Your task to perform on an android device: Search for the best pizza restaurants on Maps Image 0: 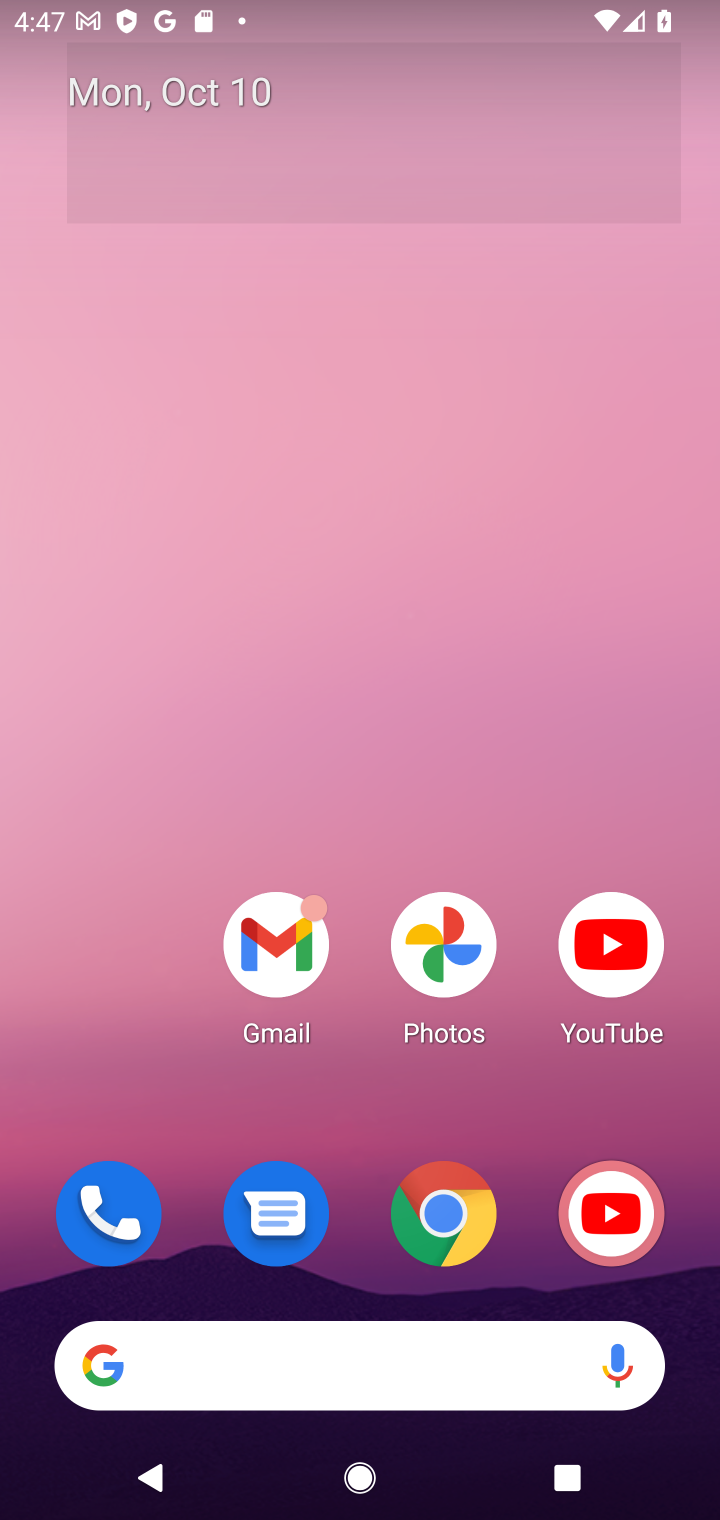
Step 0: drag from (361, 1038) to (332, 243)
Your task to perform on an android device: Search for the best pizza restaurants on Maps Image 1: 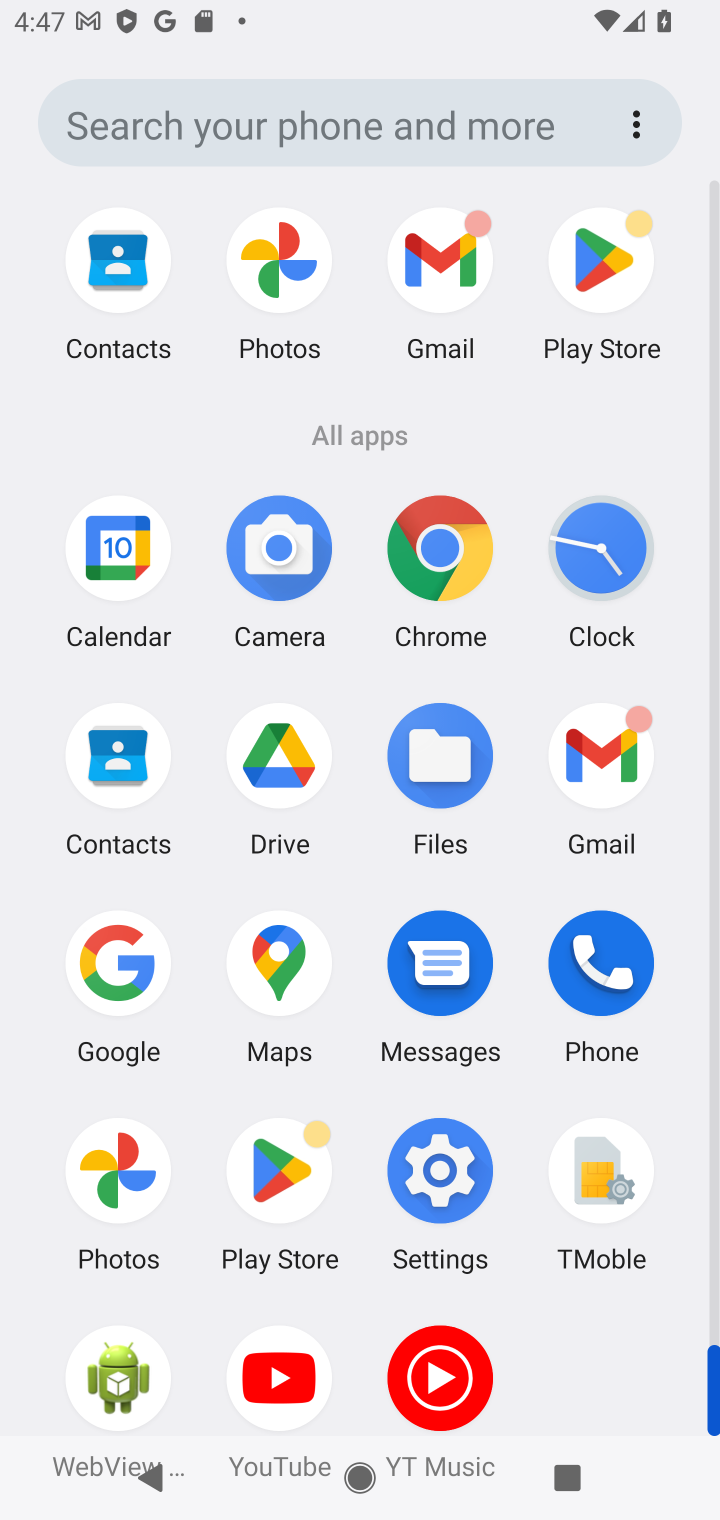
Step 1: click (284, 968)
Your task to perform on an android device: Search for the best pizza restaurants on Maps Image 2: 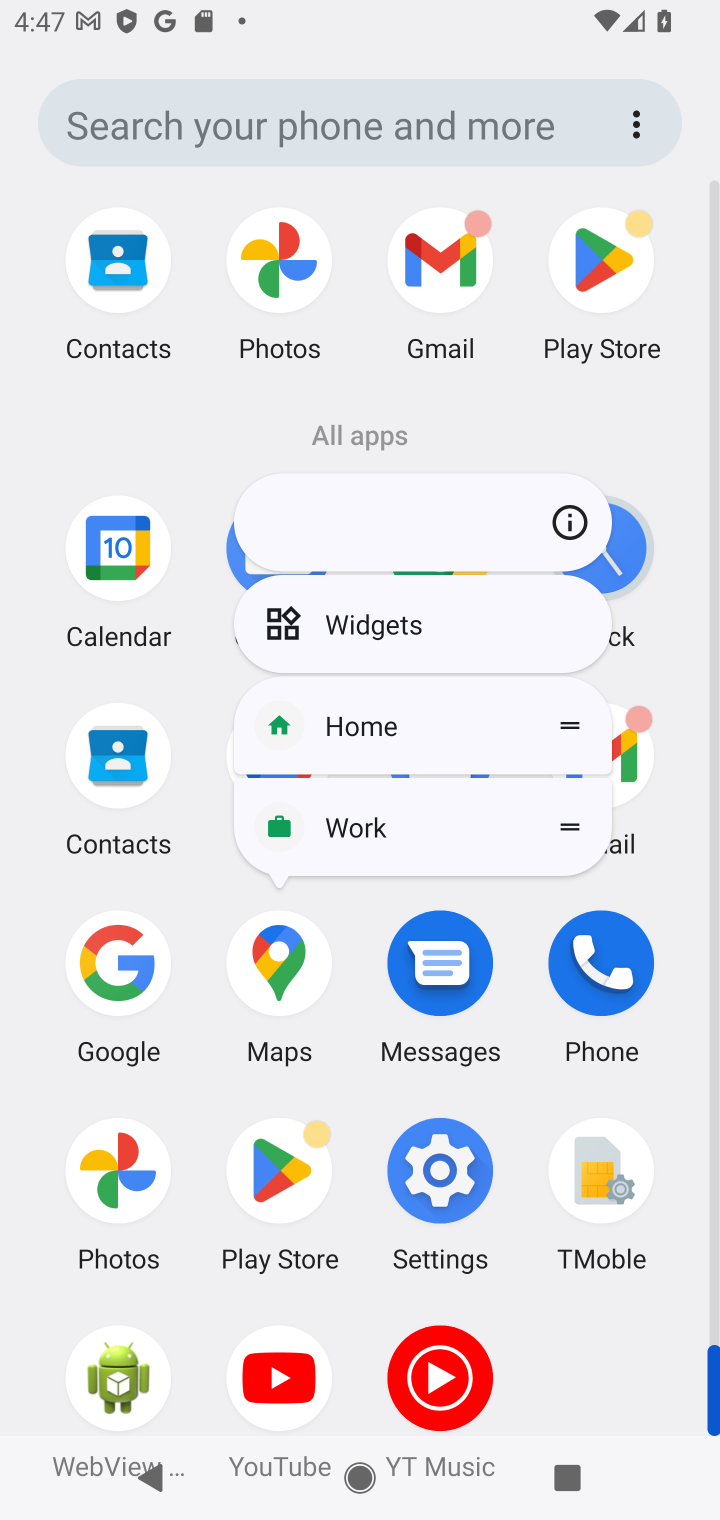
Step 2: click (284, 968)
Your task to perform on an android device: Search for the best pizza restaurants on Maps Image 3: 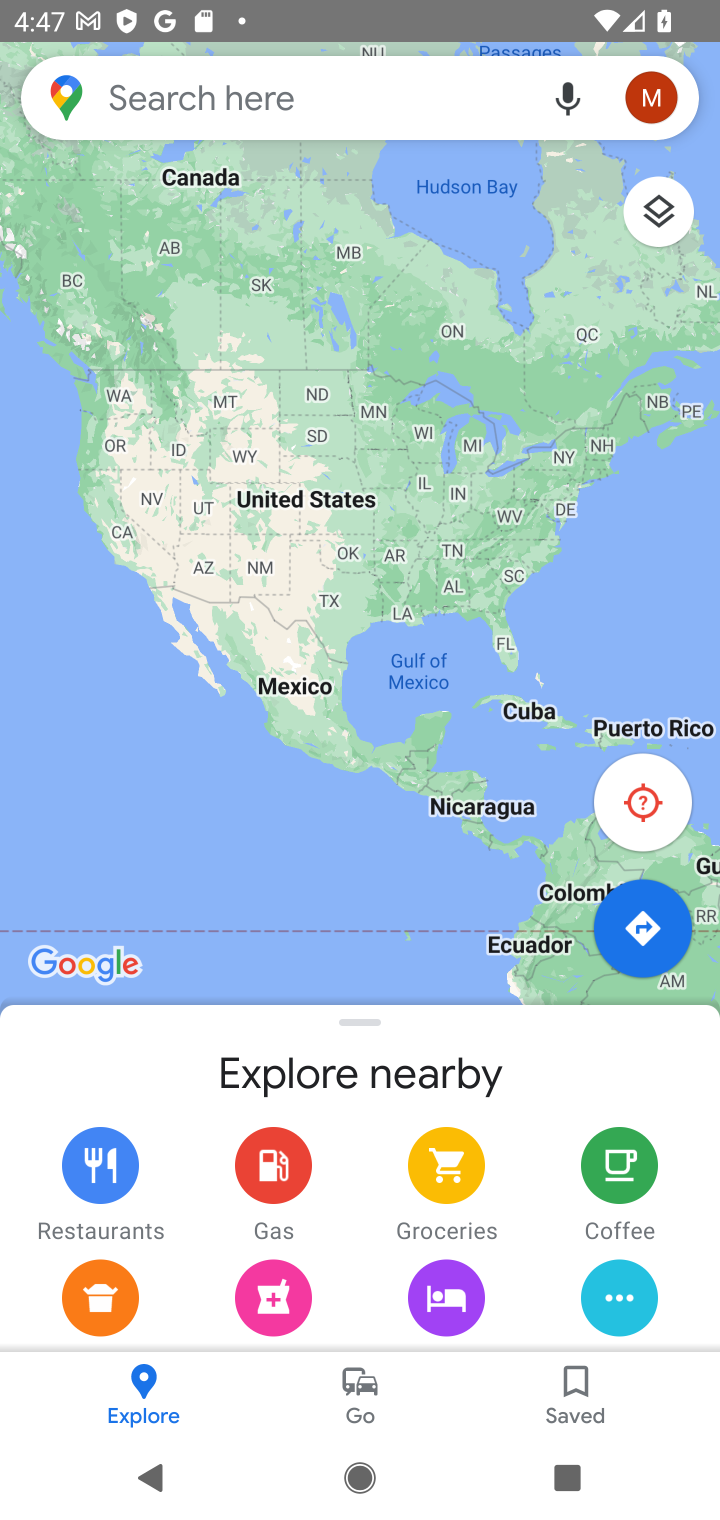
Step 3: click (437, 109)
Your task to perform on an android device: Search for the best pizza restaurants on Maps Image 4: 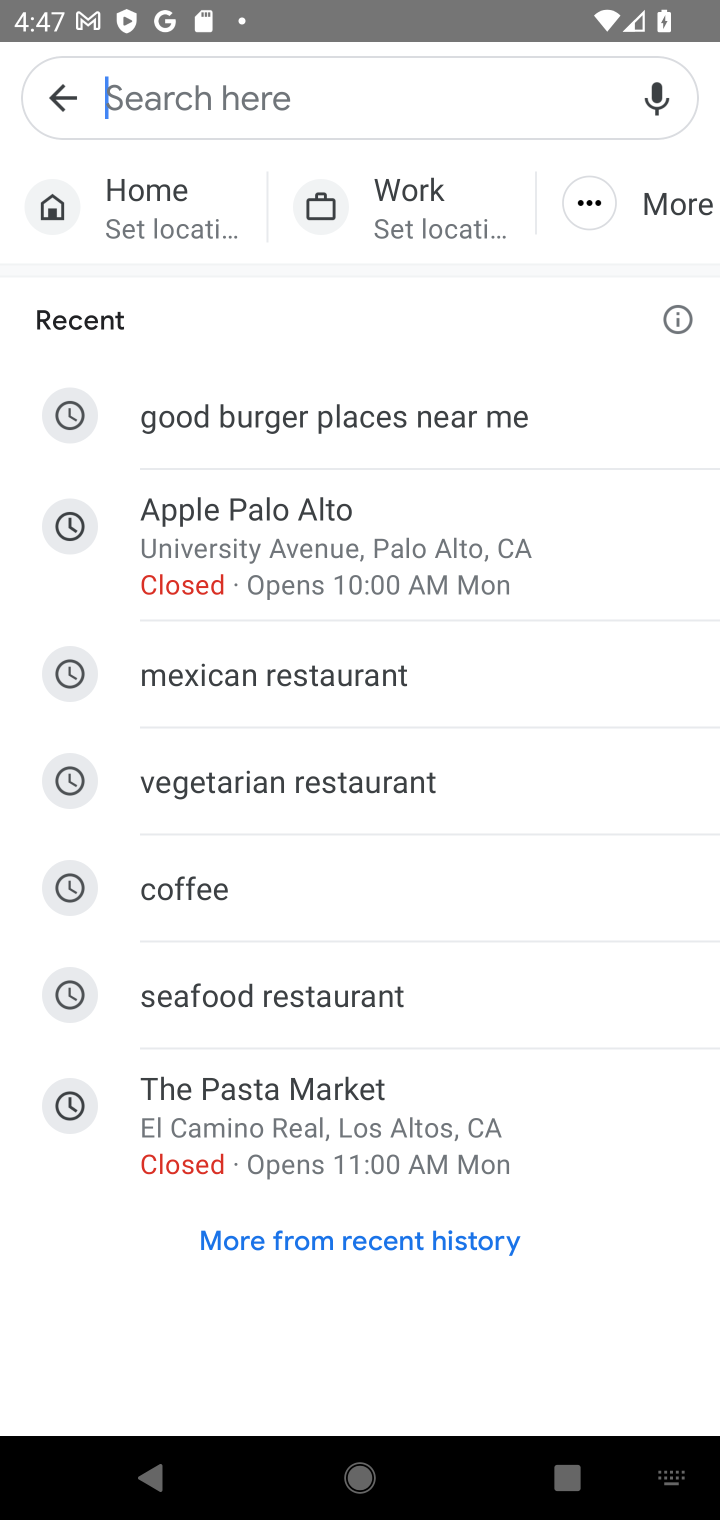
Step 4: type "best pizza restaurants"
Your task to perform on an android device: Search for the best pizza restaurants on Maps Image 5: 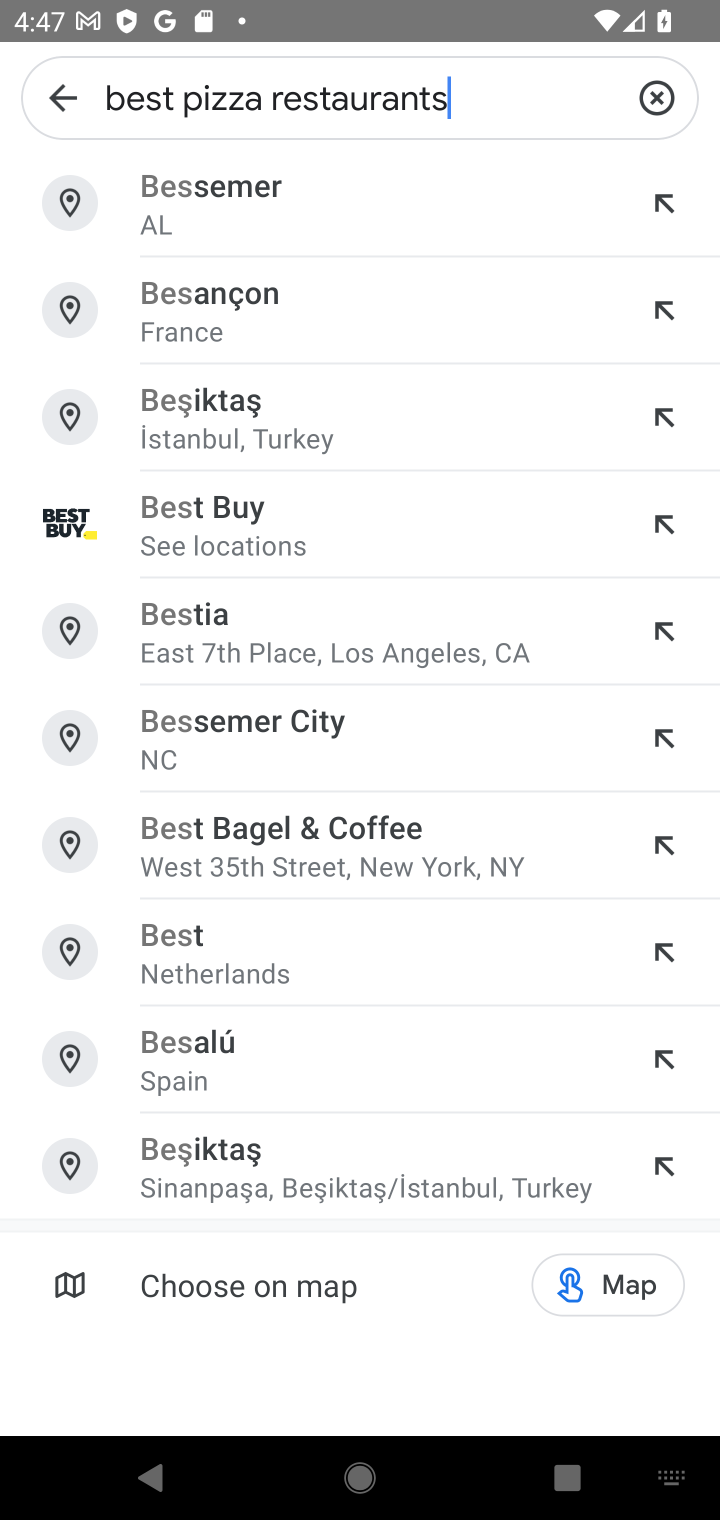
Step 5: type ""
Your task to perform on an android device: Search for the best pizza restaurants on Maps Image 6: 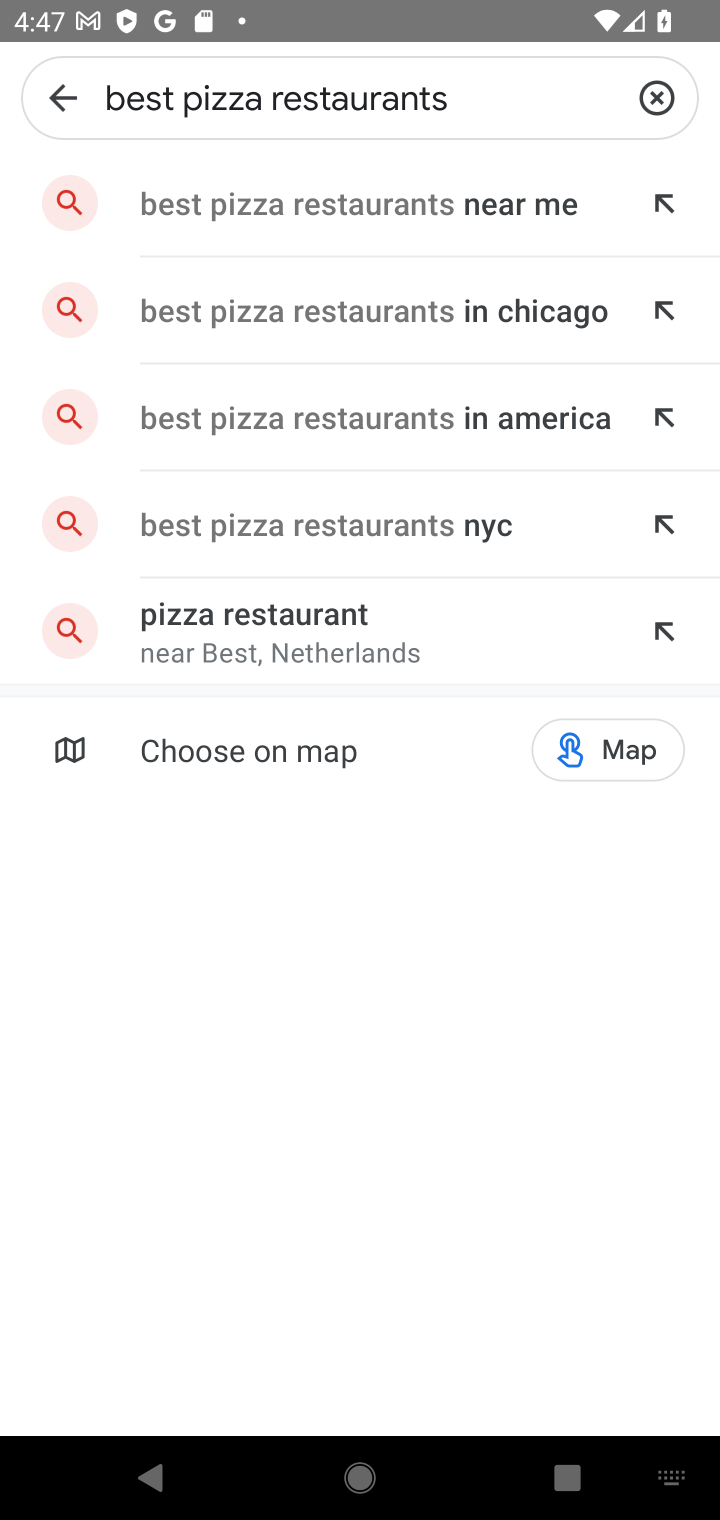
Step 6: click (486, 196)
Your task to perform on an android device: Search for the best pizza restaurants on Maps Image 7: 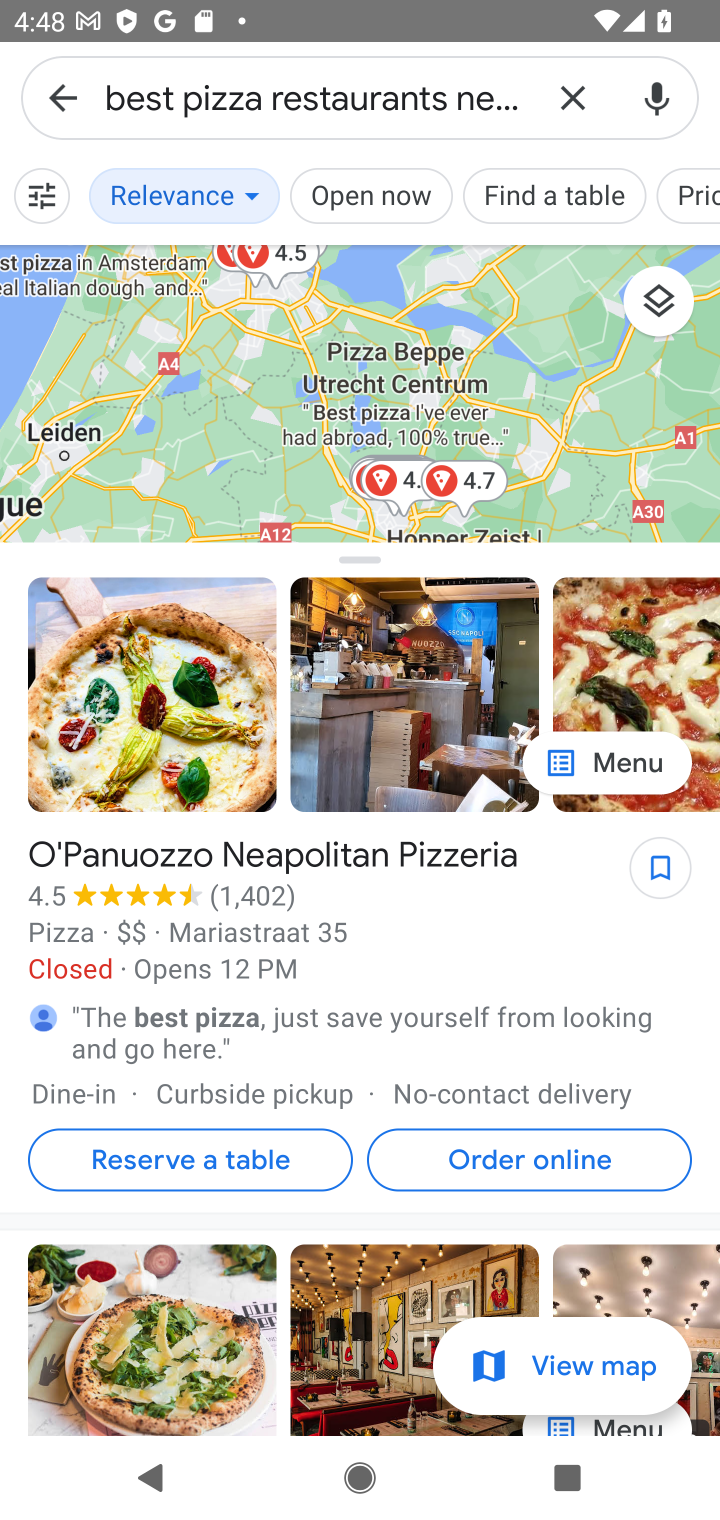
Step 7: task complete